Your task to perform on an android device: Go to internet settings Image 0: 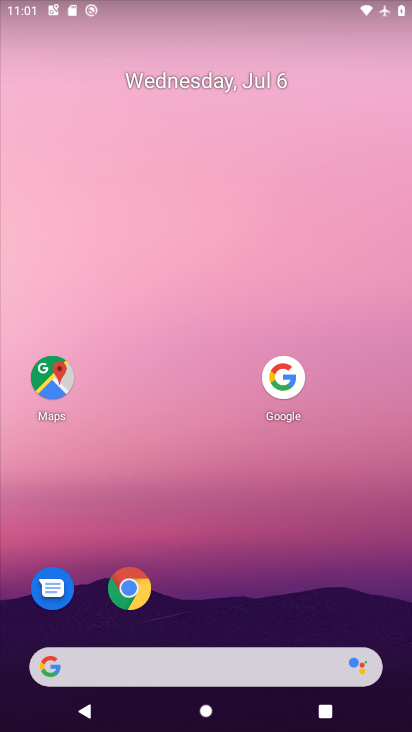
Step 0: drag from (217, 651) to (329, 116)
Your task to perform on an android device: Go to internet settings Image 1: 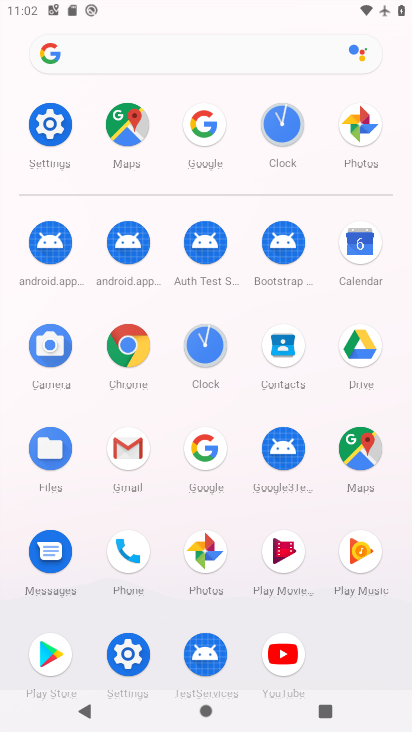
Step 1: click (47, 125)
Your task to perform on an android device: Go to internet settings Image 2: 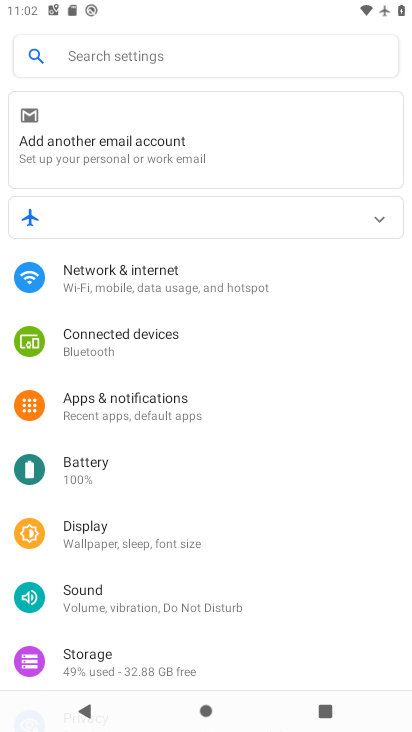
Step 2: click (140, 275)
Your task to perform on an android device: Go to internet settings Image 3: 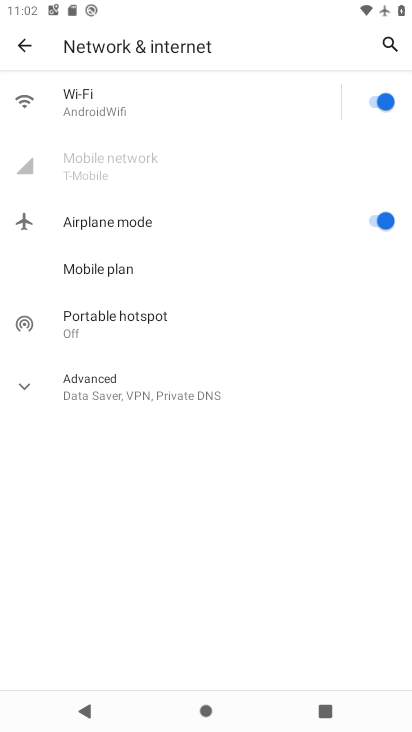
Step 3: task complete